Your task to perform on an android device: Open privacy settings Image 0: 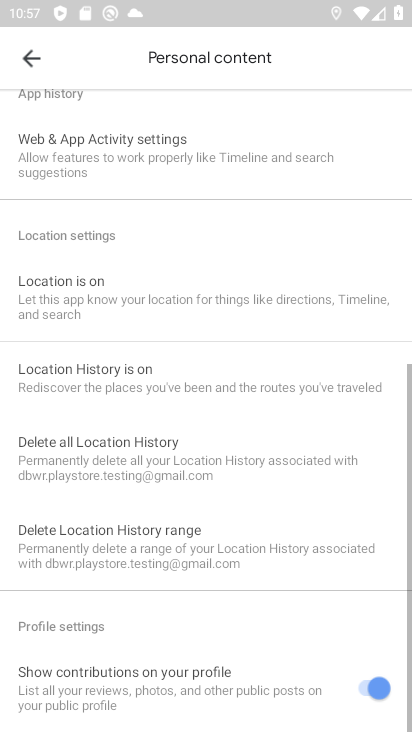
Step 0: drag from (356, 727) to (216, 90)
Your task to perform on an android device: Open privacy settings Image 1: 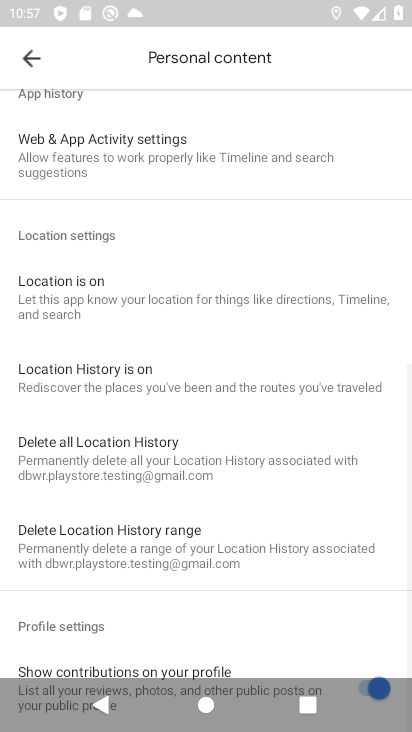
Step 1: click (35, 58)
Your task to perform on an android device: Open privacy settings Image 2: 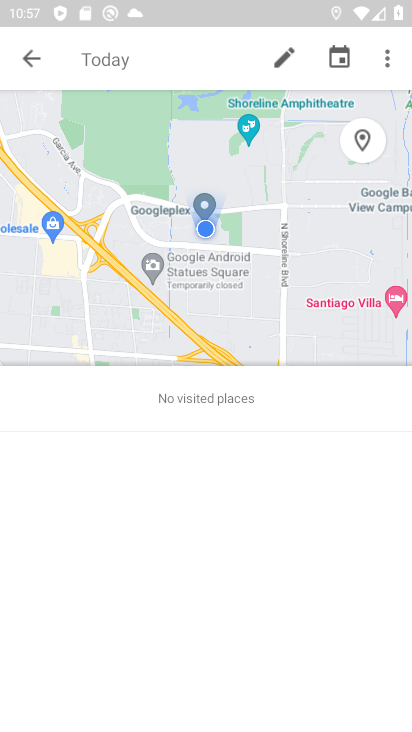
Step 2: press home button
Your task to perform on an android device: Open privacy settings Image 3: 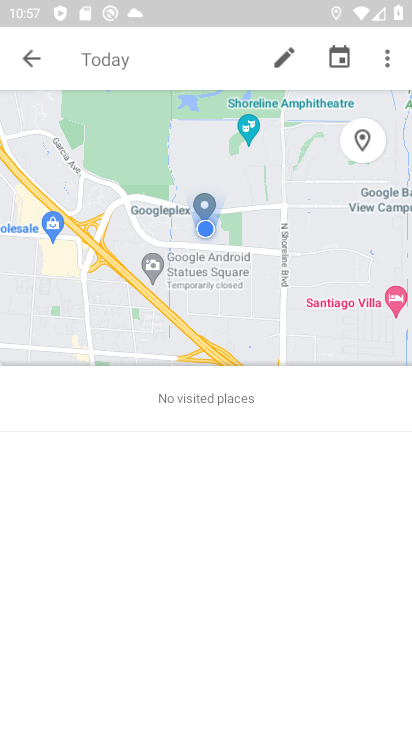
Step 3: press home button
Your task to perform on an android device: Open privacy settings Image 4: 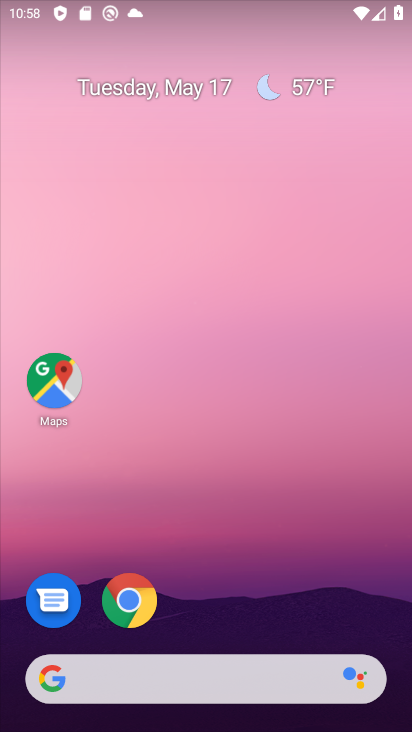
Step 4: drag from (296, 618) to (214, 102)
Your task to perform on an android device: Open privacy settings Image 5: 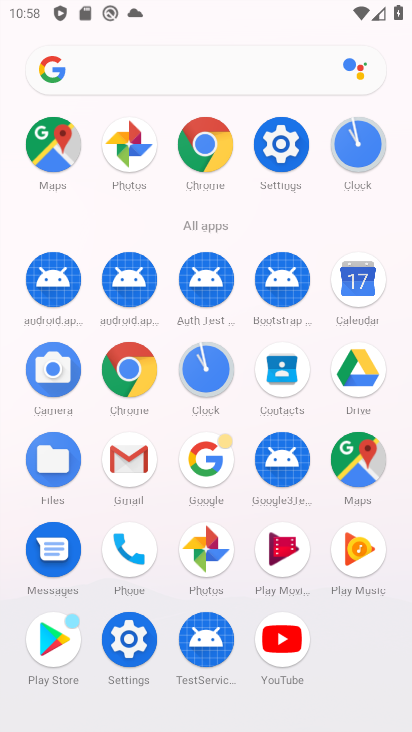
Step 5: click (283, 156)
Your task to perform on an android device: Open privacy settings Image 6: 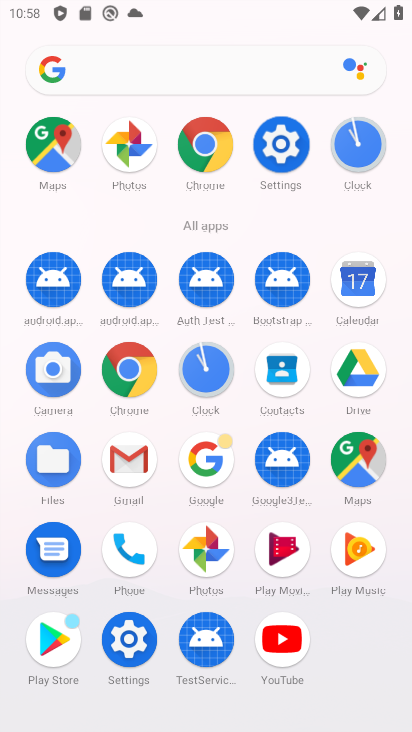
Step 6: click (283, 156)
Your task to perform on an android device: Open privacy settings Image 7: 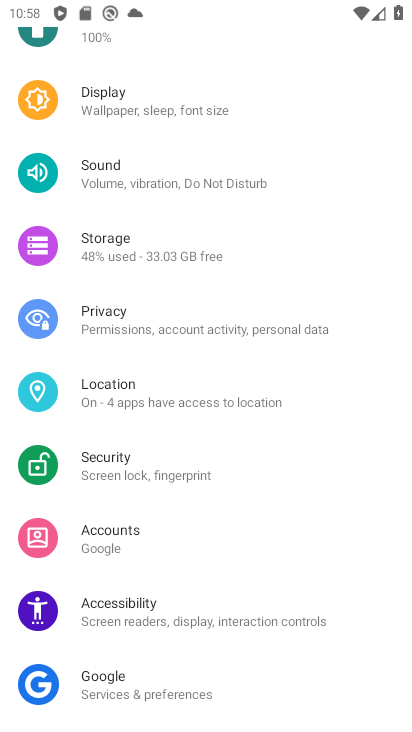
Step 7: click (108, 329)
Your task to perform on an android device: Open privacy settings Image 8: 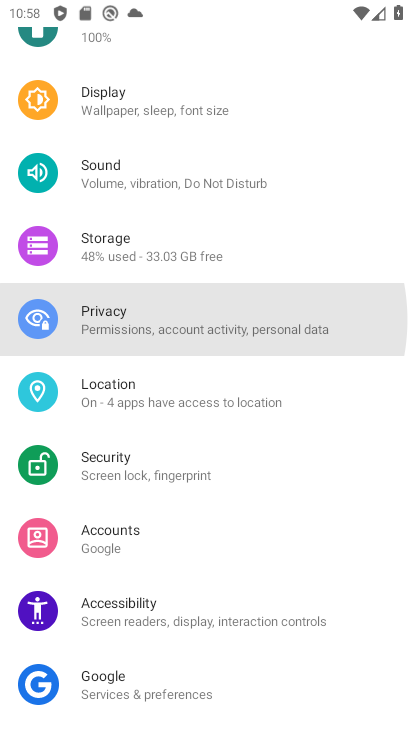
Step 8: click (110, 328)
Your task to perform on an android device: Open privacy settings Image 9: 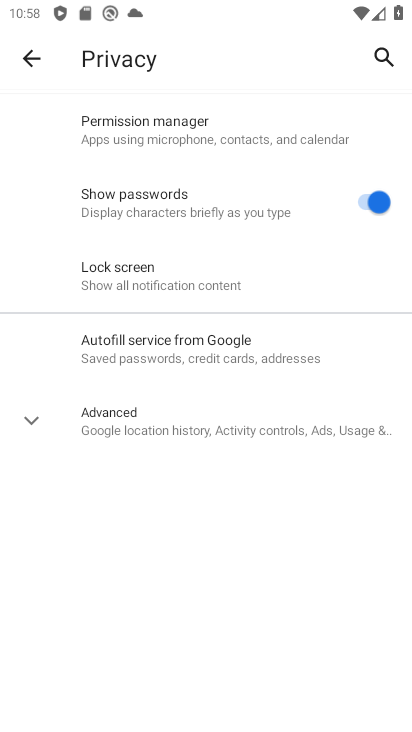
Step 9: task complete